Your task to perform on an android device: change the clock style Image 0: 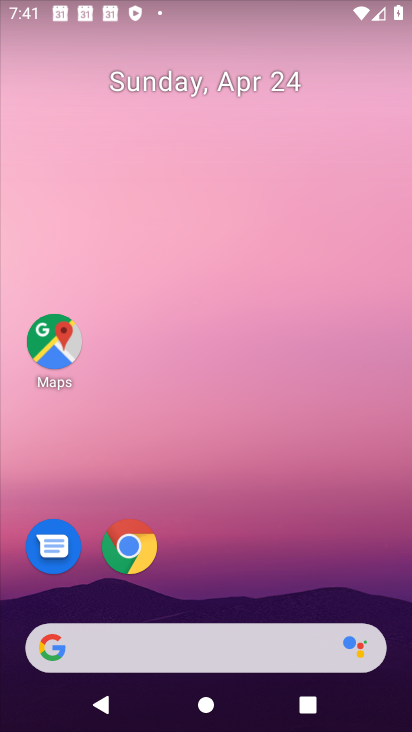
Step 0: drag from (298, 564) to (202, 111)
Your task to perform on an android device: change the clock style Image 1: 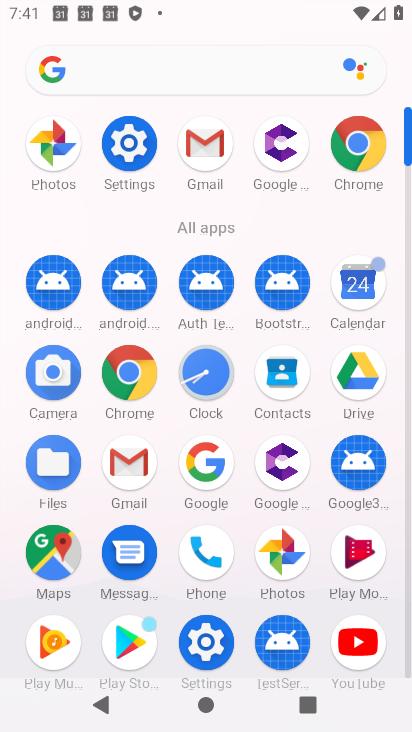
Step 1: click (218, 370)
Your task to perform on an android device: change the clock style Image 2: 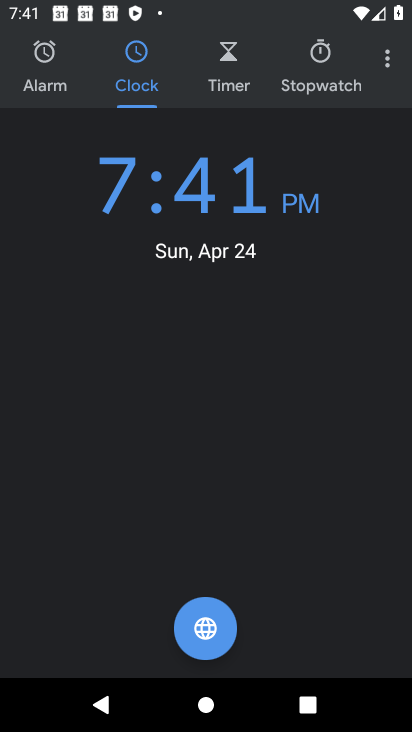
Step 2: click (381, 65)
Your task to perform on an android device: change the clock style Image 3: 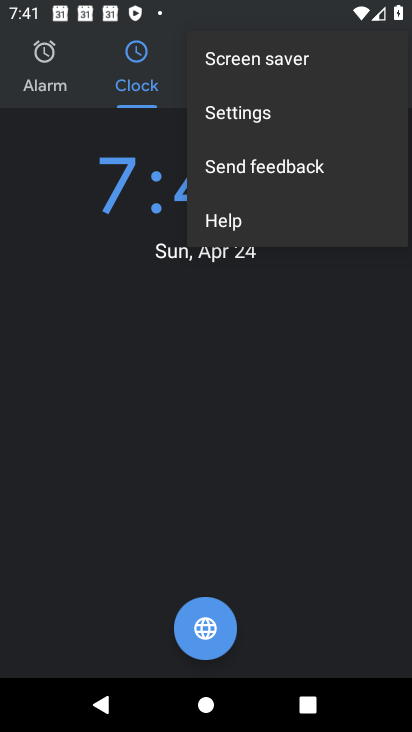
Step 3: click (324, 115)
Your task to perform on an android device: change the clock style Image 4: 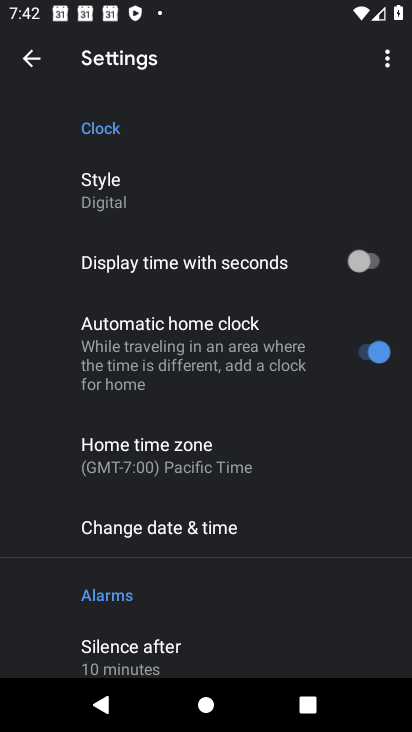
Step 4: click (129, 216)
Your task to perform on an android device: change the clock style Image 5: 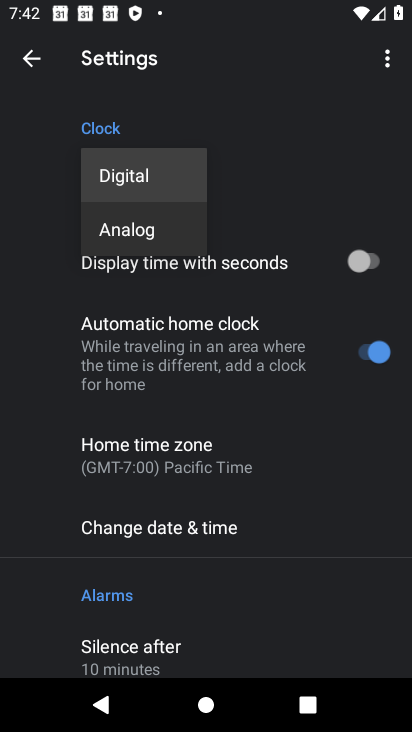
Step 5: click (173, 226)
Your task to perform on an android device: change the clock style Image 6: 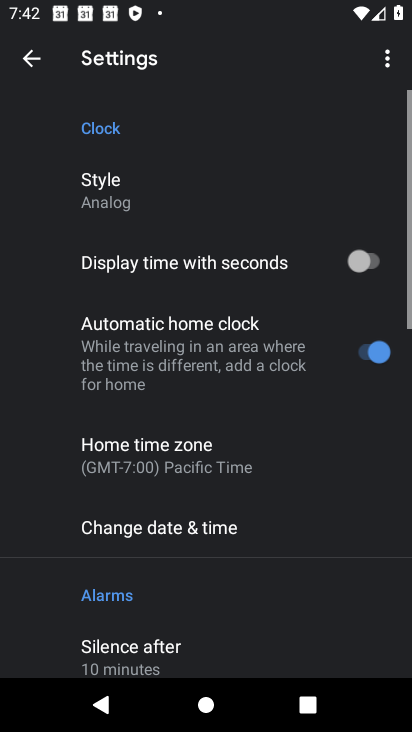
Step 6: task complete